Your task to perform on an android device: Open Reddit.com Image 0: 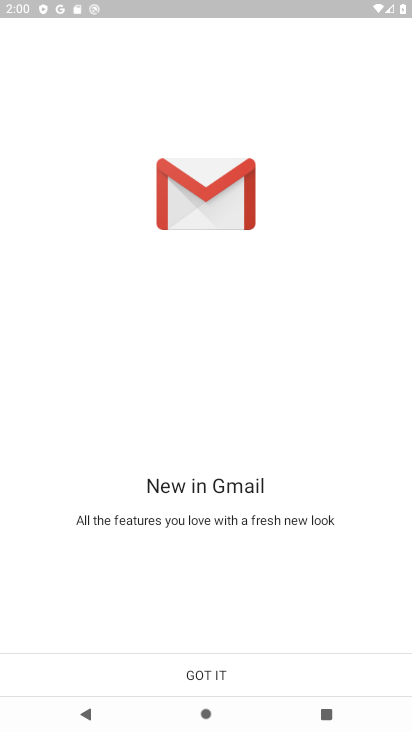
Step 0: press home button
Your task to perform on an android device: Open Reddit.com Image 1: 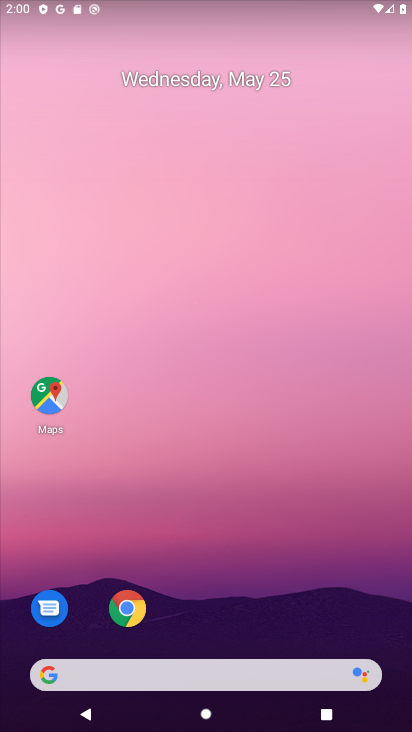
Step 1: click (118, 618)
Your task to perform on an android device: Open Reddit.com Image 2: 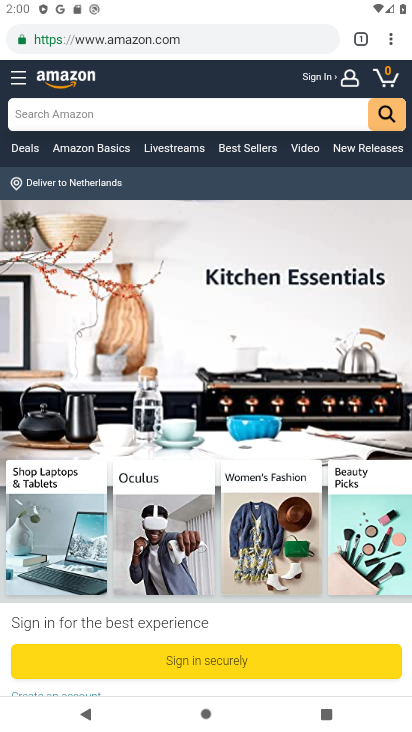
Step 2: click (386, 41)
Your task to perform on an android device: Open Reddit.com Image 3: 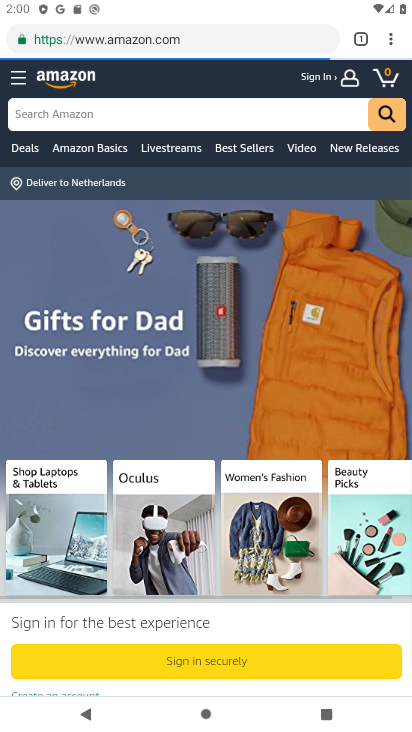
Step 3: click (386, 41)
Your task to perform on an android device: Open Reddit.com Image 4: 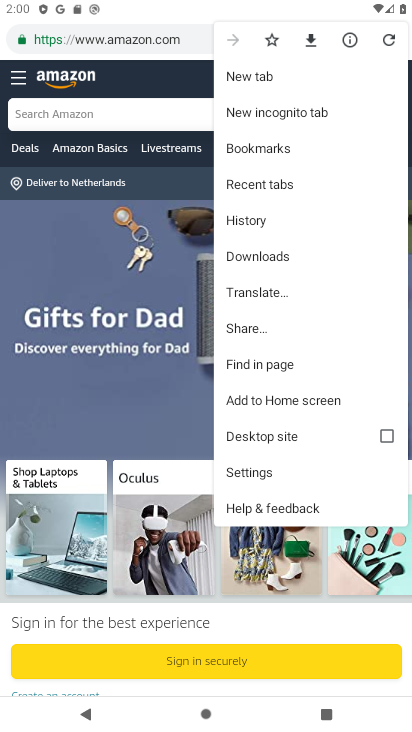
Step 4: click (285, 80)
Your task to perform on an android device: Open Reddit.com Image 5: 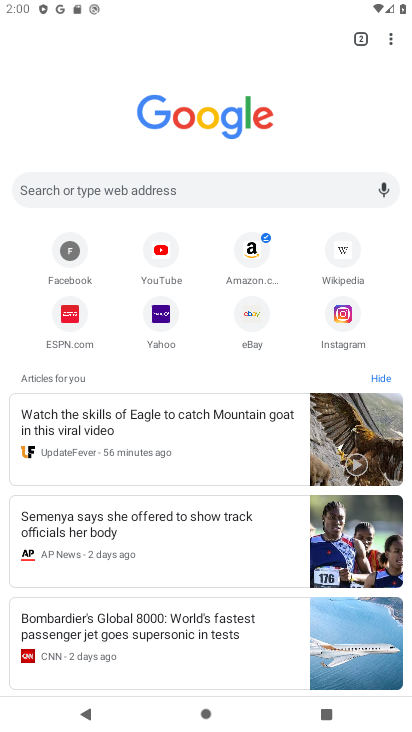
Step 5: click (70, 191)
Your task to perform on an android device: Open Reddit.com Image 6: 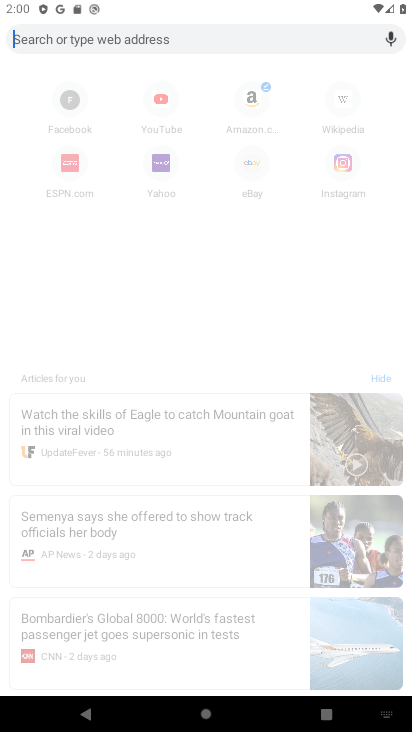
Step 6: type "reddit.com"
Your task to perform on an android device: Open Reddit.com Image 7: 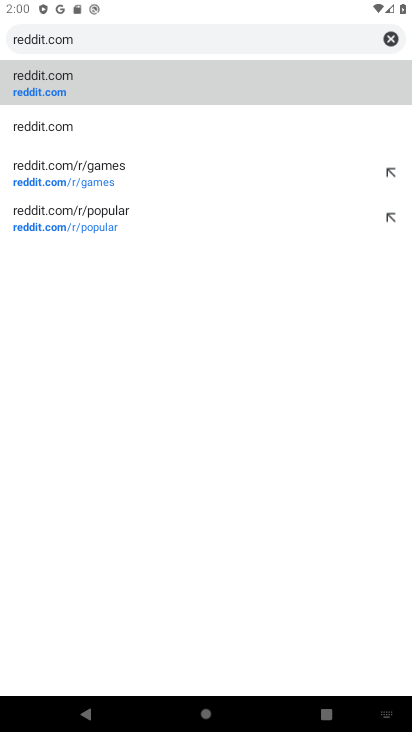
Step 7: click (215, 95)
Your task to perform on an android device: Open Reddit.com Image 8: 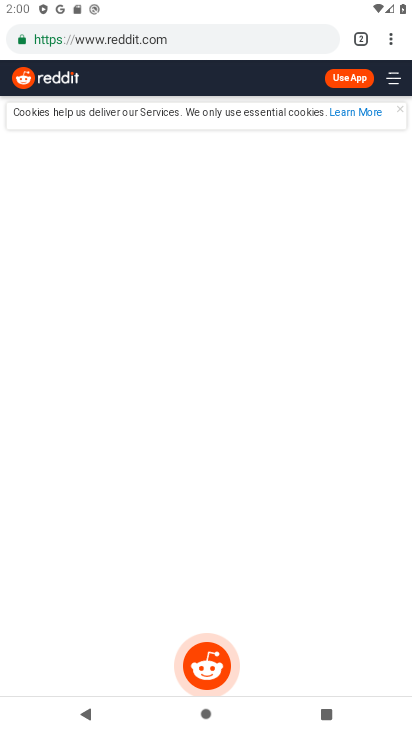
Step 8: task complete